Your task to perform on an android device: open app "LiveIn - Share Your Moment" (install if not already installed) Image 0: 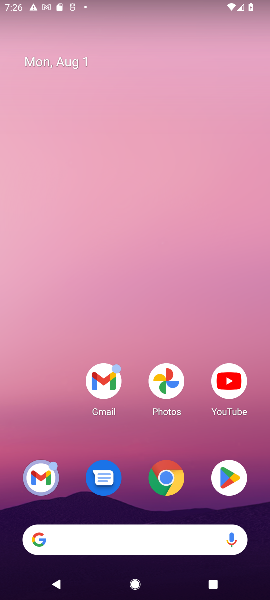
Step 0: press home button
Your task to perform on an android device: open app "LiveIn - Share Your Moment" (install if not already installed) Image 1: 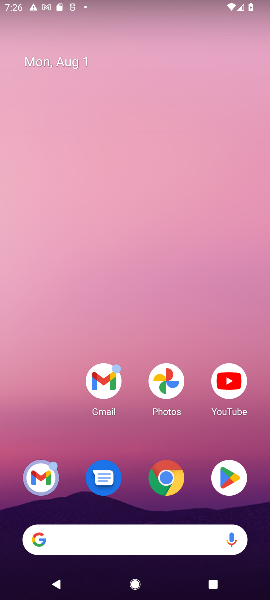
Step 1: click (231, 472)
Your task to perform on an android device: open app "LiveIn - Share Your Moment" (install if not already installed) Image 2: 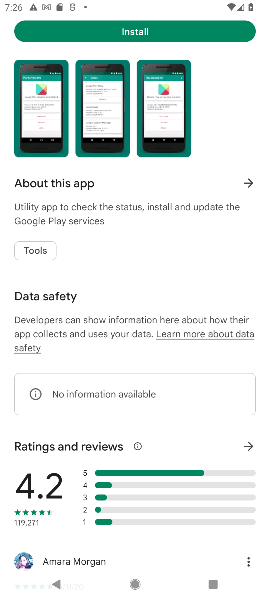
Step 2: press back button
Your task to perform on an android device: open app "LiveIn - Share Your Moment" (install if not already installed) Image 3: 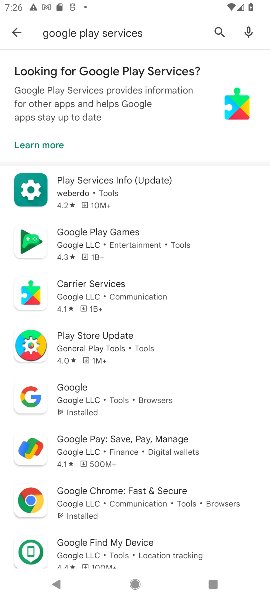
Step 3: click (214, 32)
Your task to perform on an android device: open app "LiveIn - Share Your Moment" (install if not already installed) Image 4: 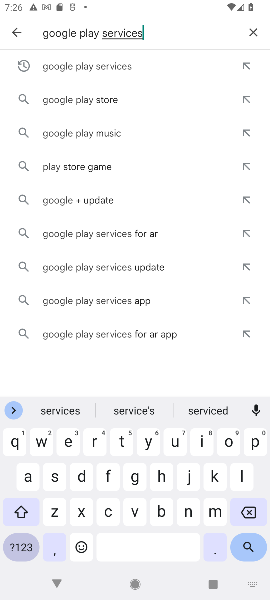
Step 4: click (254, 31)
Your task to perform on an android device: open app "LiveIn - Share Your Moment" (install if not already installed) Image 5: 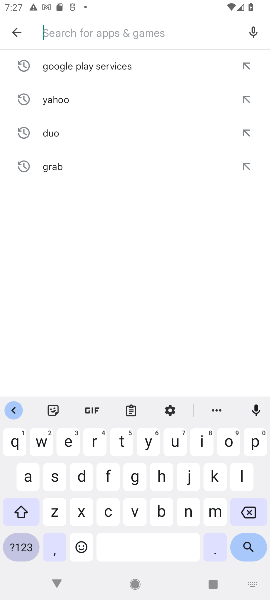
Step 5: click (233, 484)
Your task to perform on an android device: open app "LiveIn - Share Your Moment" (install if not already installed) Image 6: 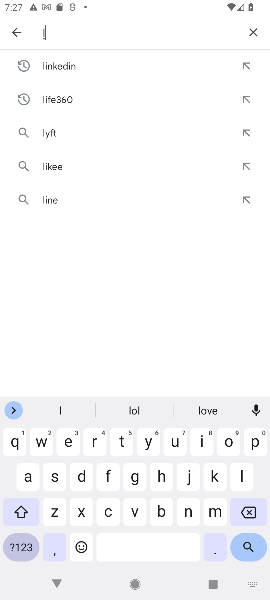
Step 6: click (196, 442)
Your task to perform on an android device: open app "LiveIn - Share Your Moment" (install if not already installed) Image 7: 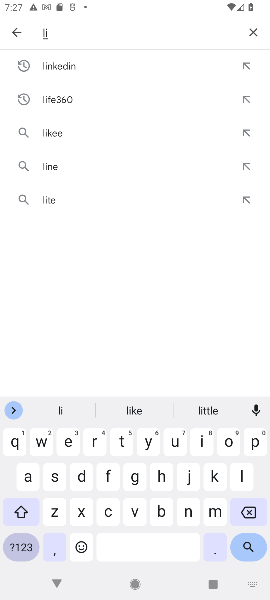
Step 7: click (135, 513)
Your task to perform on an android device: open app "LiveIn - Share Your Moment" (install if not already installed) Image 8: 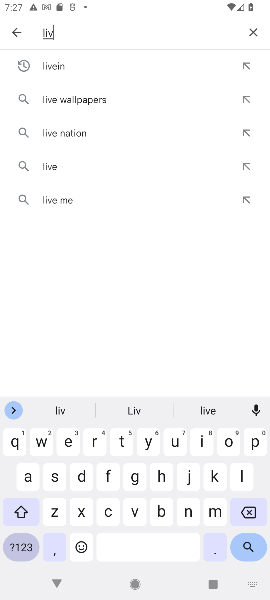
Step 8: click (70, 445)
Your task to perform on an android device: open app "LiveIn - Share Your Moment" (install if not already installed) Image 9: 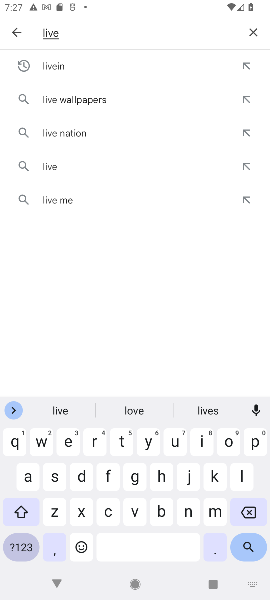
Step 9: click (52, 68)
Your task to perform on an android device: open app "LiveIn - Share Your Moment" (install if not already installed) Image 10: 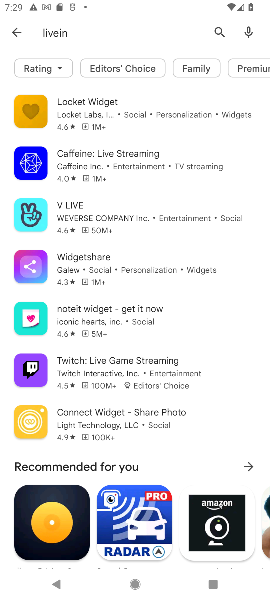
Step 10: task complete